Your task to perform on an android device: delete browsing data in the chrome app Image 0: 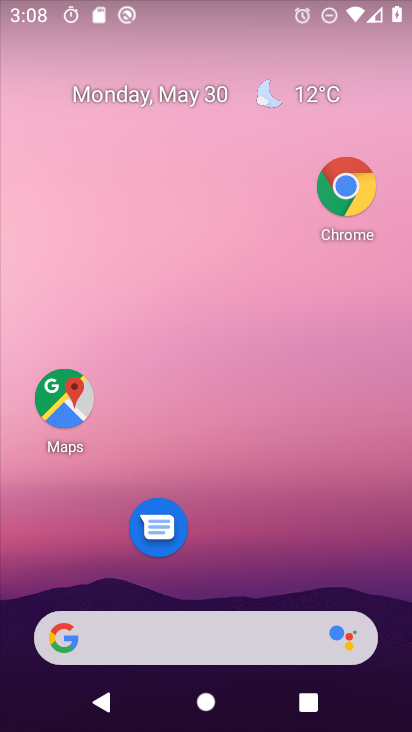
Step 0: drag from (209, 579) to (237, 193)
Your task to perform on an android device: delete browsing data in the chrome app Image 1: 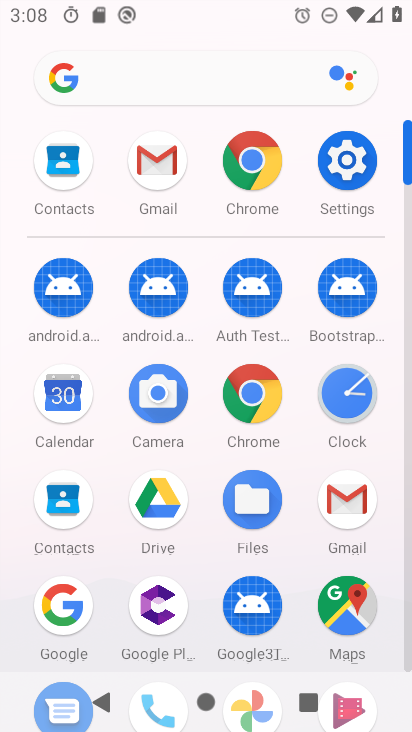
Step 1: click (243, 392)
Your task to perform on an android device: delete browsing data in the chrome app Image 2: 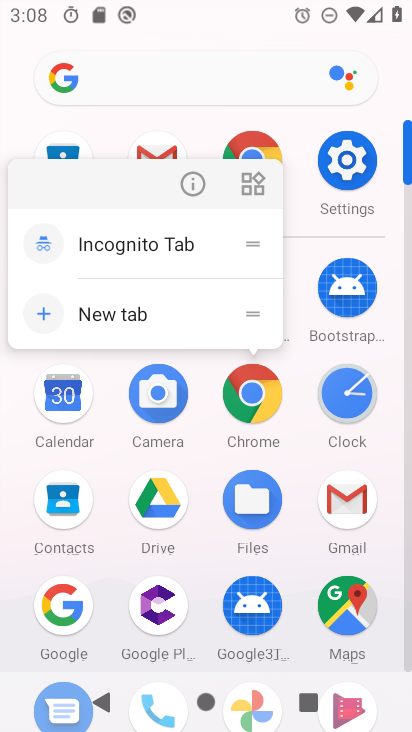
Step 2: click (200, 196)
Your task to perform on an android device: delete browsing data in the chrome app Image 3: 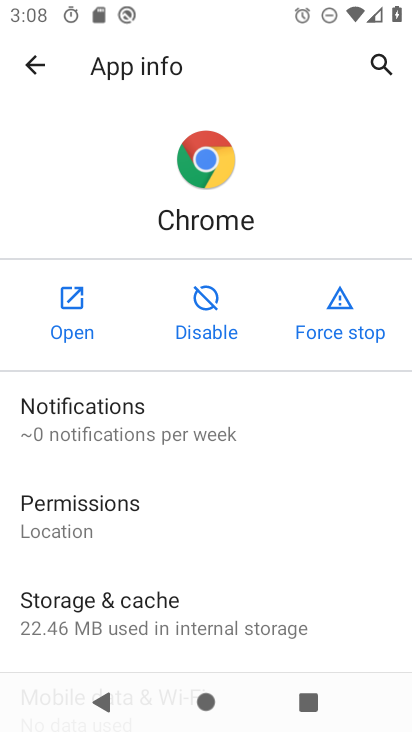
Step 3: click (64, 296)
Your task to perform on an android device: delete browsing data in the chrome app Image 4: 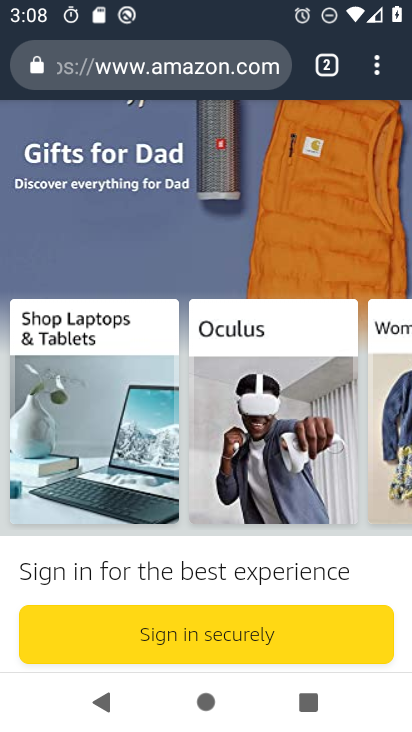
Step 4: drag from (377, 64) to (174, 368)
Your task to perform on an android device: delete browsing data in the chrome app Image 5: 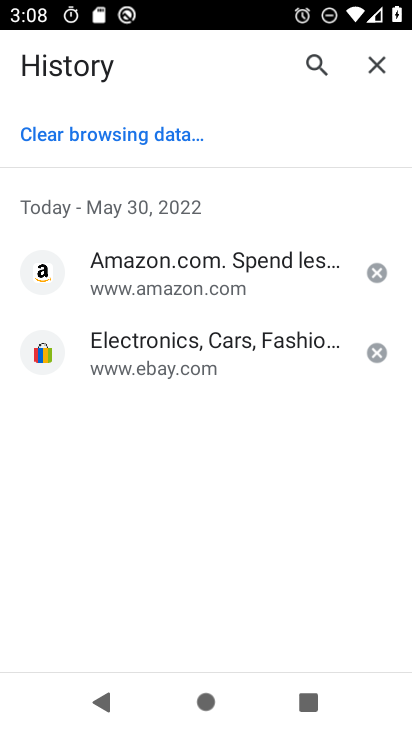
Step 5: drag from (219, 449) to (300, 161)
Your task to perform on an android device: delete browsing data in the chrome app Image 6: 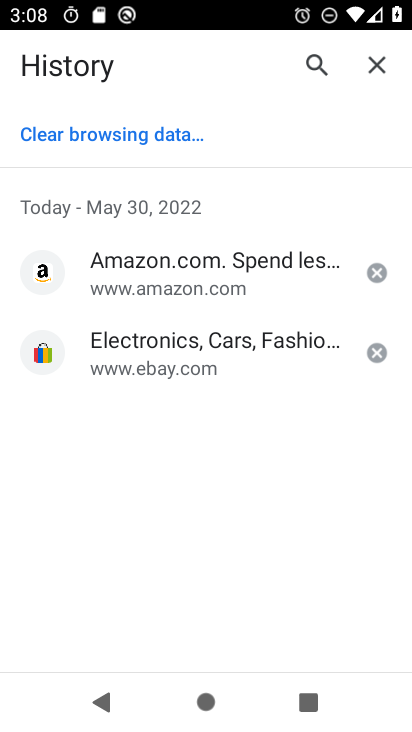
Step 6: click (114, 144)
Your task to perform on an android device: delete browsing data in the chrome app Image 7: 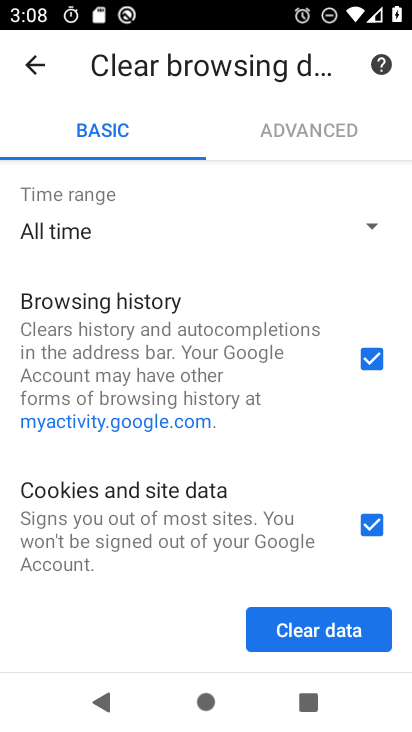
Step 7: click (304, 636)
Your task to perform on an android device: delete browsing data in the chrome app Image 8: 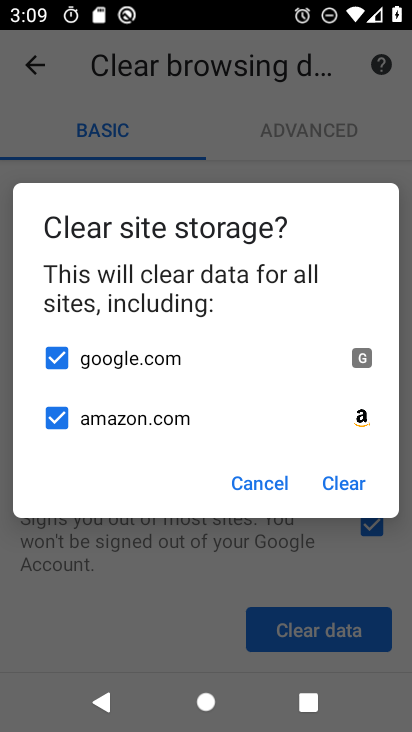
Step 8: click (336, 487)
Your task to perform on an android device: delete browsing data in the chrome app Image 9: 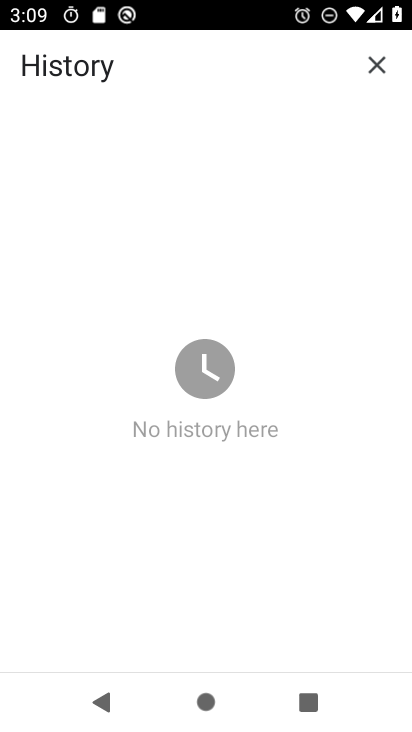
Step 9: task complete